Your task to perform on an android device: set the stopwatch Image 0: 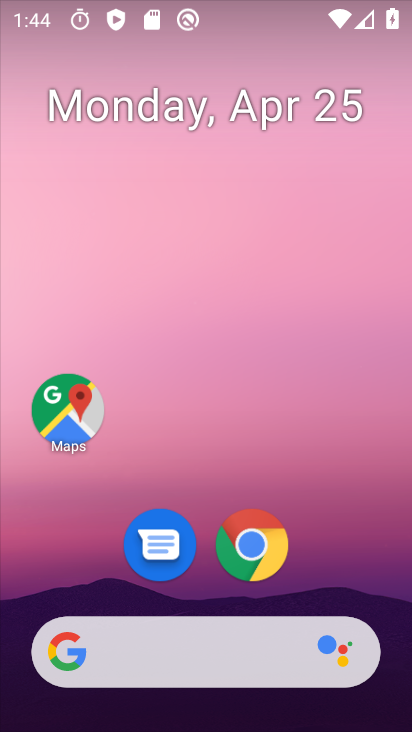
Step 0: drag from (325, 502) to (315, 165)
Your task to perform on an android device: set the stopwatch Image 1: 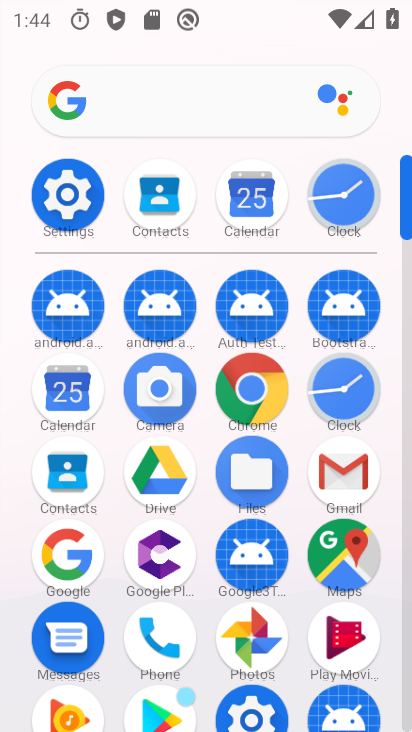
Step 1: click (342, 223)
Your task to perform on an android device: set the stopwatch Image 2: 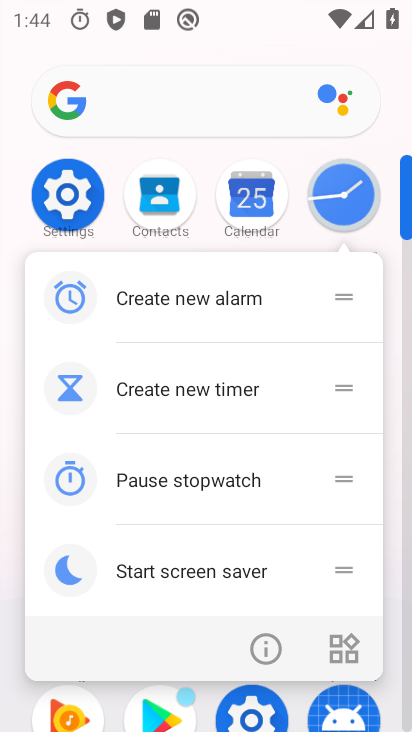
Step 2: click (339, 200)
Your task to perform on an android device: set the stopwatch Image 3: 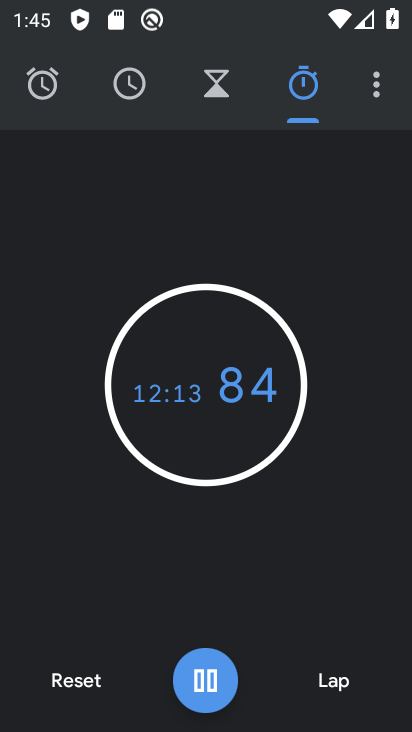
Step 3: click (256, 673)
Your task to perform on an android device: set the stopwatch Image 4: 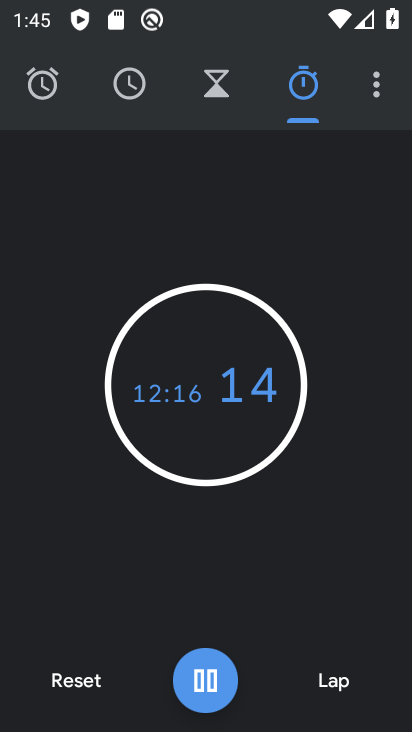
Step 4: task complete